Your task to perform on an android device: turn off improve location accuracy Image 0: 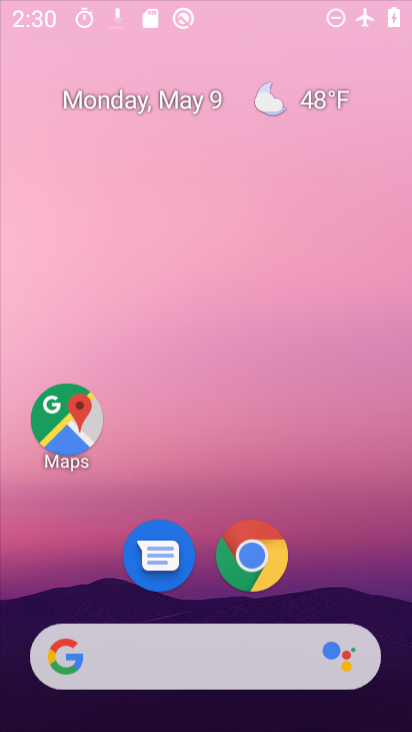
Step 0: click (291, 125)
Your task to perform on an android device: turn off improve location accuracy Image 1: 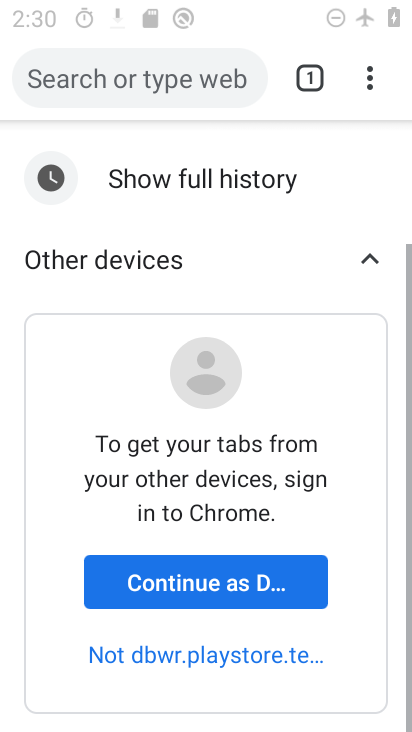
Step 1: drag from (222, 607) to (172, 120)
Your task to perform on an android device: turn off improve location accuracy Image 2: 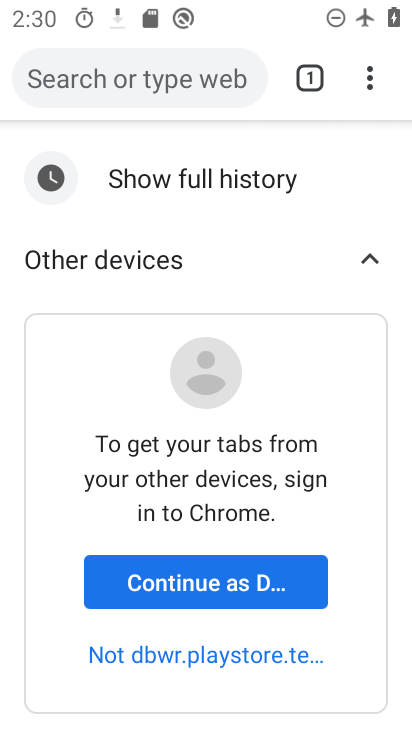
Step 2: drag from (136, 712) to (255, 85)
Your task to perform on an android device: turn off improve location accuracy Image 3: 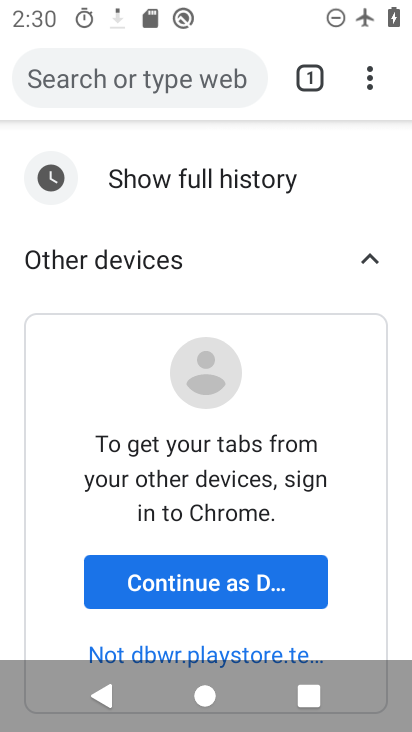
Step 3: drag from (42, 593) to (176, 143)
Your task to perform on an android device: turn off improve location accuracy Image 4: 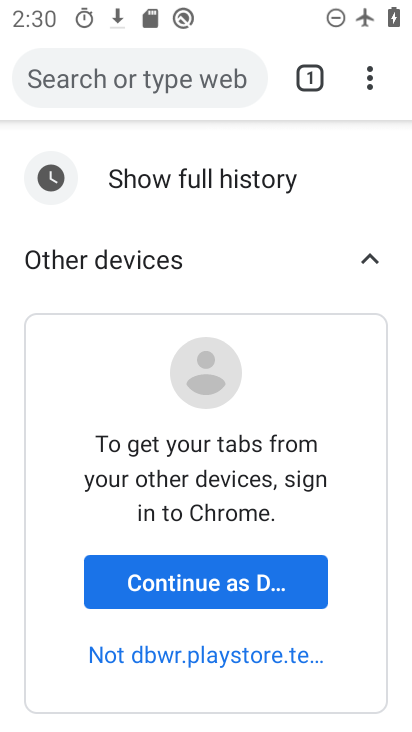
Step 4: drag from (361, 599) to (345, 151)
Your task to perform on an android device: turn off improve location accuracy Image 5: 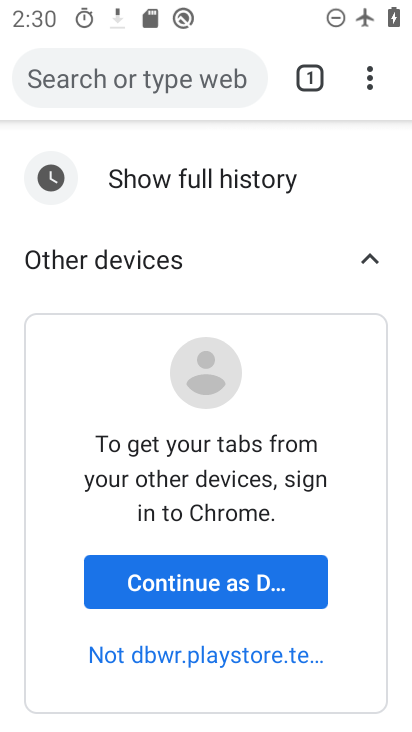
Step 5: drag from (266, 599) to (384, 94)
Your task to perform on an android device: turn off improve location accuracy Image 6: 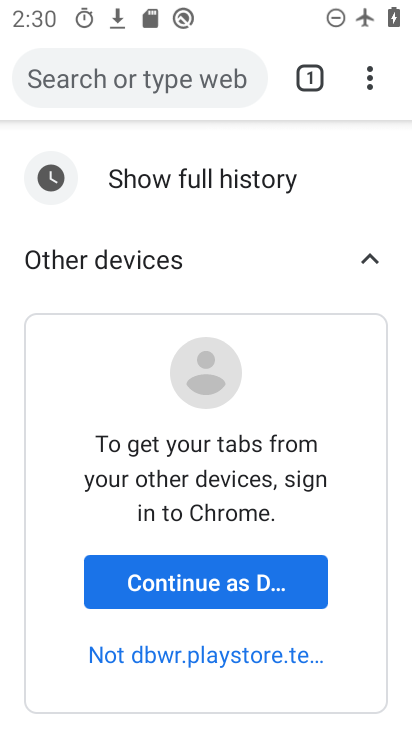
Step 6: press home button
Your task to perform on an android device: turn off improve location accuracy Image 7: 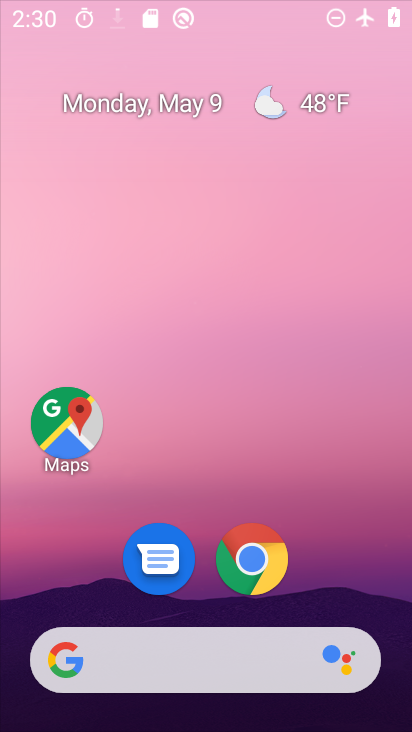
Step 7: drag from (184, 696) to (232, 201)
Your task to perform on an android device: turn off improve location accuracy Image 8: 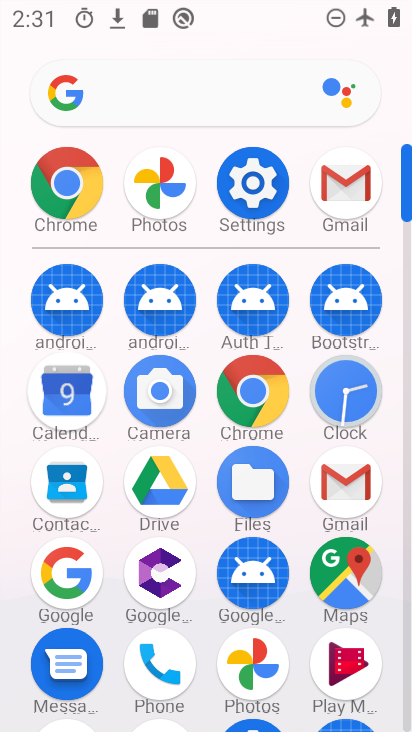
Step 8: click (257, 187)
Your task to perform on an android device: turn off improve location accuracy Image 9: 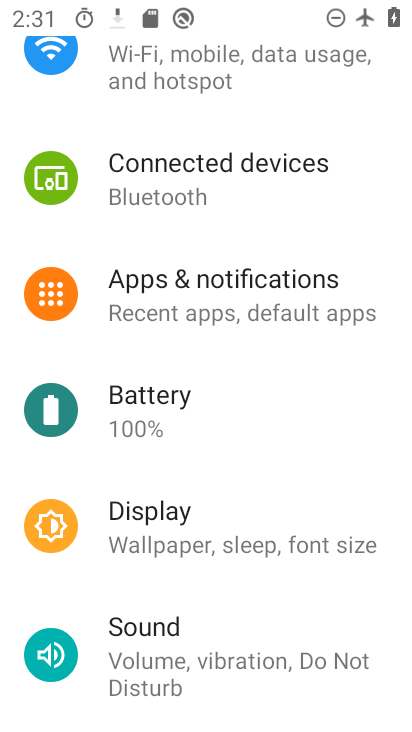
Step 9: drag from (212, 529) to (220, 705)
Your task to perform on an android device: turn off improve location accuracy Image 10: 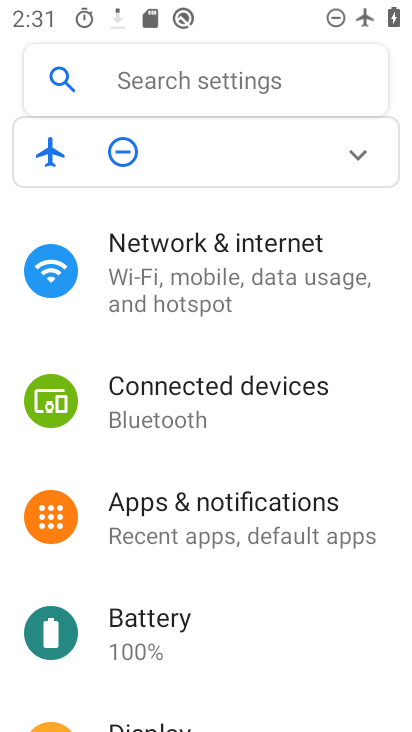
Step 10: drag from (212, 671) to (316, 129)
Your task to perform on an android device: turn off improve location accuracy Image 11: 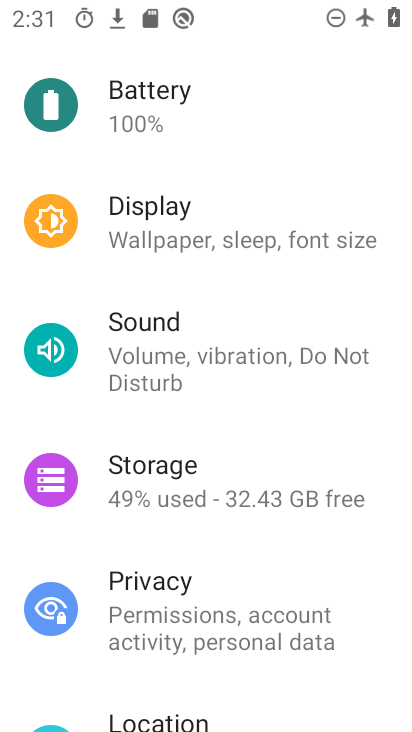
Step 11: drag from (229, 629) to (265, 172)
Your task to perform on an android device: turn off improve location accuracy Image 12: 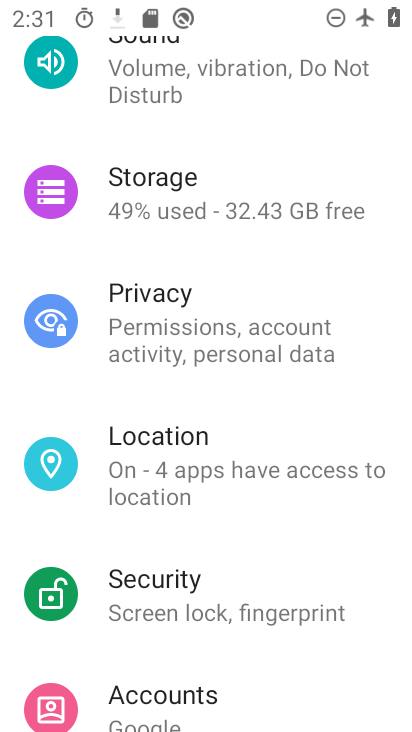
Step 12: drag from (249, 633) to (254, 427)
Your task to perform on an android device: turn off improve location accuracy Image 13: 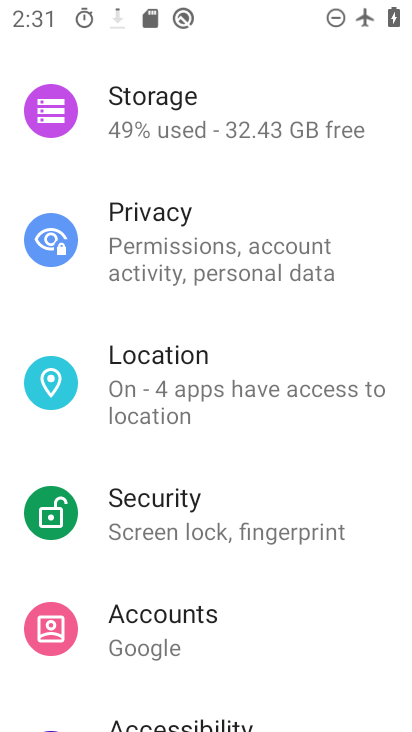
Step 13: drag from (199, 666) to (222, 332)
Your task to perform on an android device: turn off improve location accuracy Image 14: 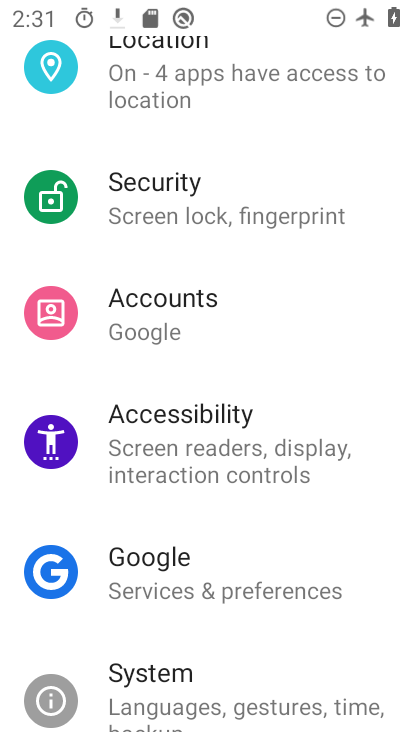
Step 14: drag from (194, 658) to (216, 308)
Your task to perform on an android device: turn off improve location accuracy Image 15: 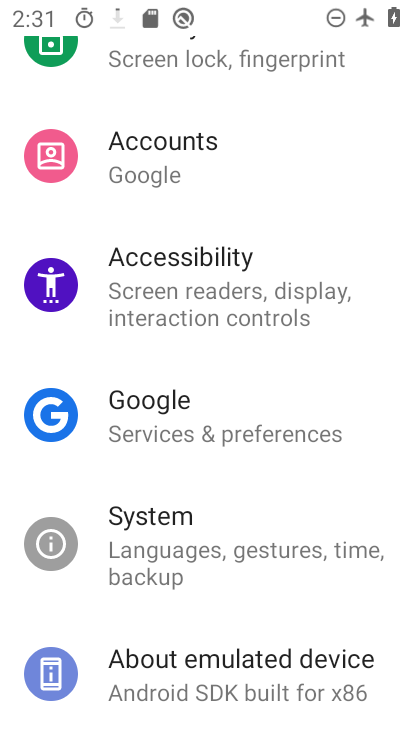
Step 15: drag from (188, 603) to (235, 321)
Your task to perform on an android device: turn off improve location accuracy Image 16: 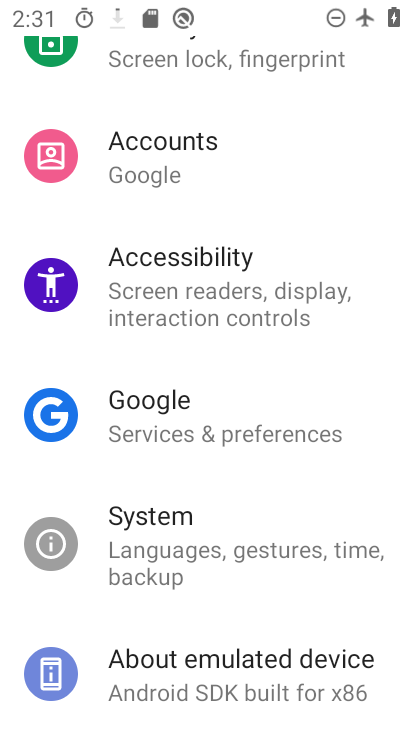
Step 16: drag from (267, 147) to (249, 641)
Your task to perform on an android device: turn off improve location accuracy Image 17: 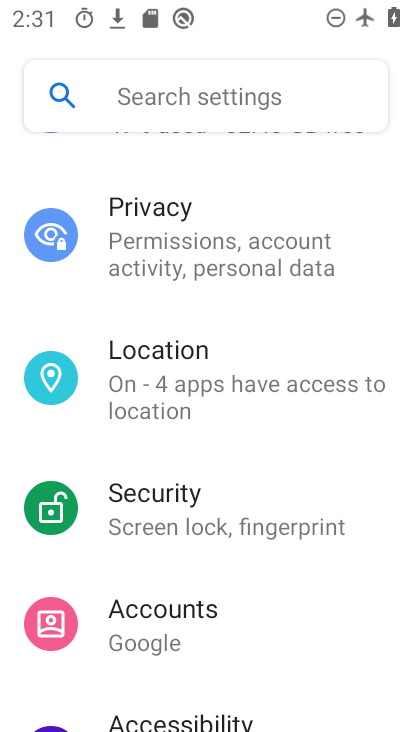
Step 17: drag from (215, 224) to (224, 710)
Your task to perform on an android device: turn off improve location accuracy Image 18: 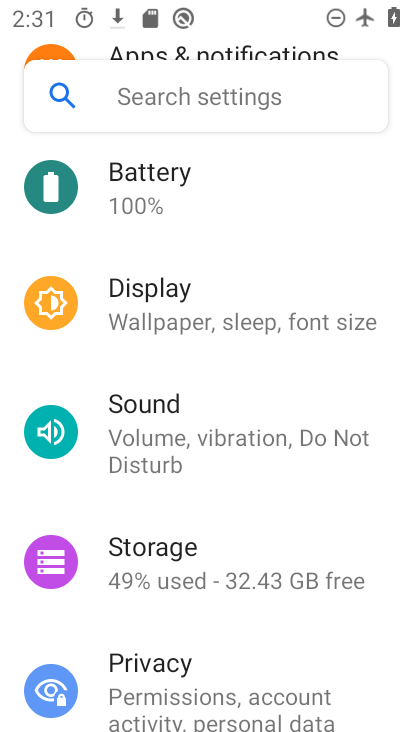
Step 18: drag from (236, 241) to (300, 727)
Your task to perform on an android device: turn off improve location accuracy Image 19: 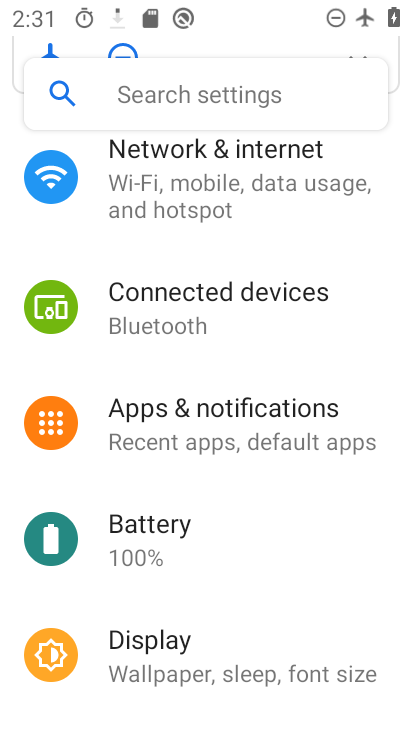
Step 19: drag from (252, 234) to (281, 728)
Your task to perform on an android device: turn off improve location accuracy Image 20: 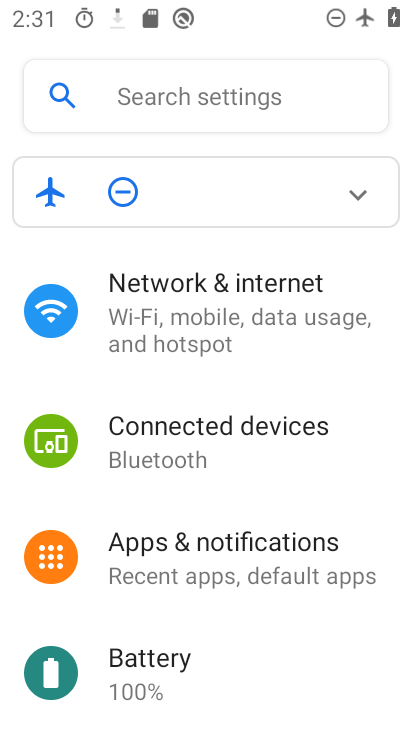
Step 20: drag from (220, 714) to (276, 330)
Your task to perform on an android device: turn off improve location accuracy Image 21: 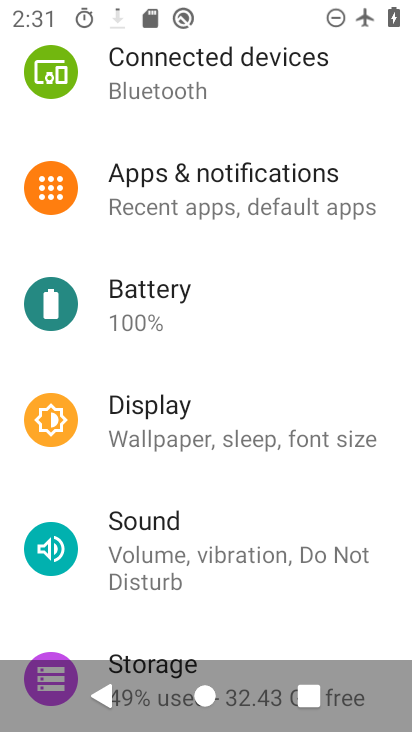
Step 21: drag from (200, 610) to (269, 306)
Your task to perform on an android device: turn off improve location accuracy Image 22: 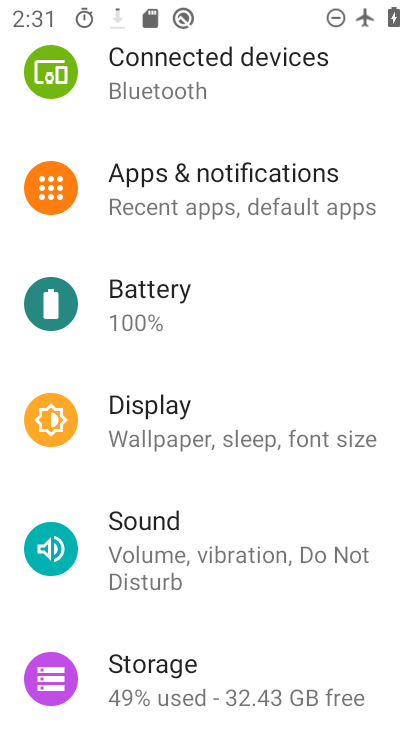
Step 22: drag from (208, 718) to (308, 332)
Your task to perform on an android device: turn off improve location accuracy Image 23: 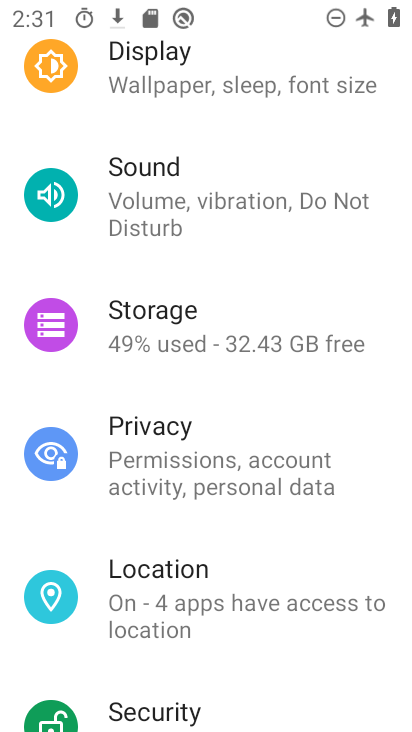
Step 23: click (224, 595)
Your task to perform on an android device: turn off improve location accuracy Image 24: 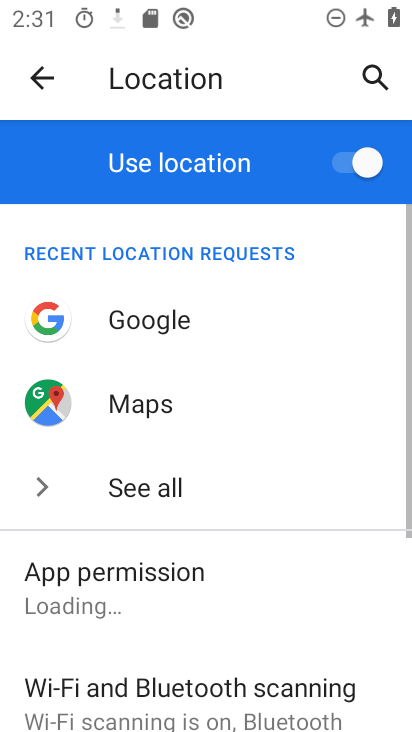
Step 24: drag from (203, 562) to (265, 43)
Your task to perform on an android device: turn off improve location accuracy Image 25: 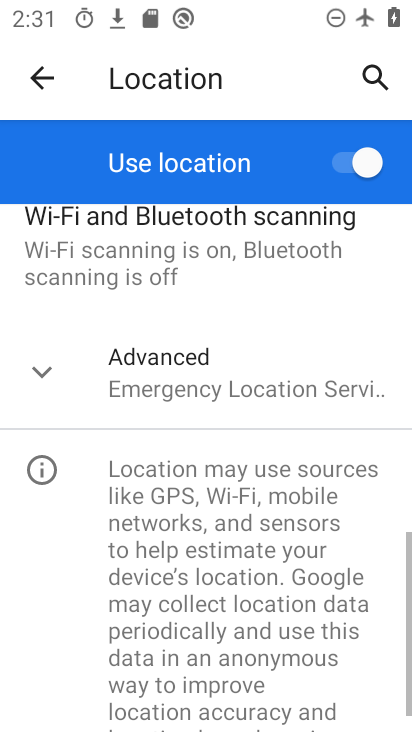
Step 25: click (180, 355)
Your task to perform on an android device: turn off improve location accuracy Image 26: 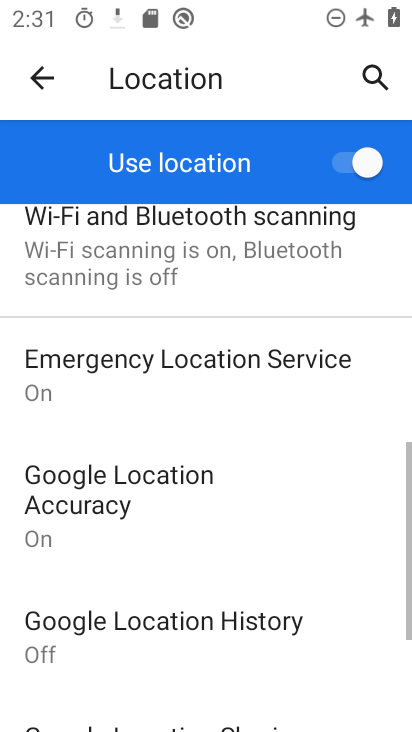
Step 26: drag from (208, 668) to (257, 251)
Your task to perform on an android device: turn off improve location accuracy Image 27: 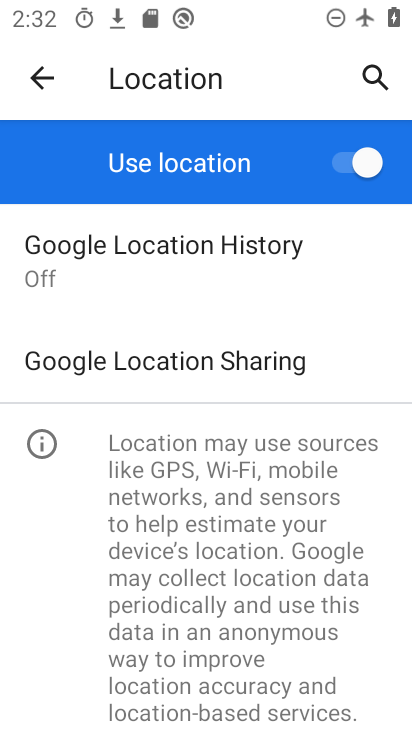
Step 27: drag from (183, 333) to (237, 705)
Your task to perform on an android device: turn off improve location accuracy Image 28: 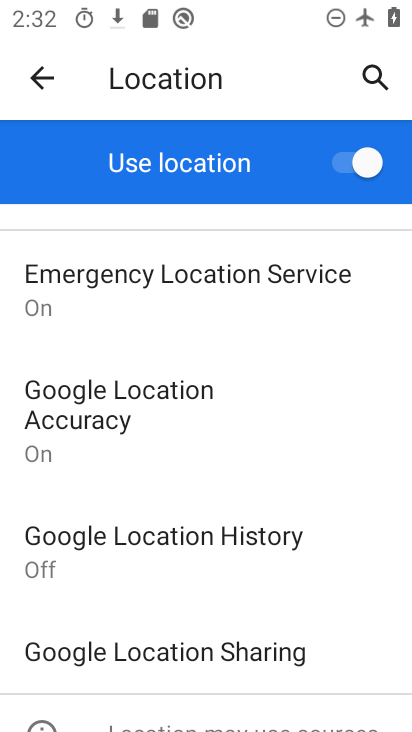
Step 28: click (156, 415)
Your task to perform on an android device: turn off improve location accuracy Image 29: 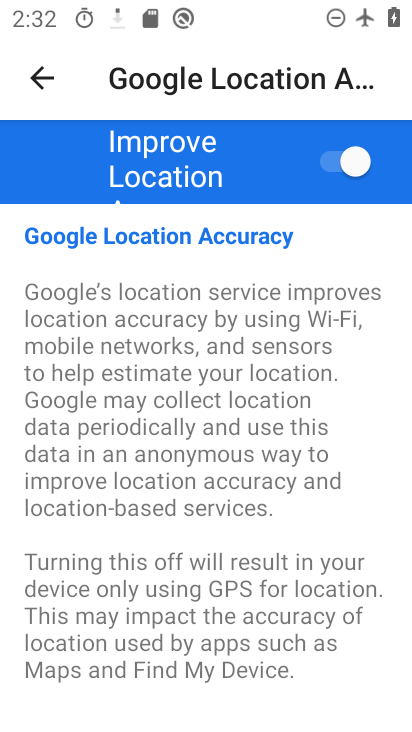
Step 29: click (352, 154)
Your task to perform on an android device: turn off improve location accuracy Image 30: 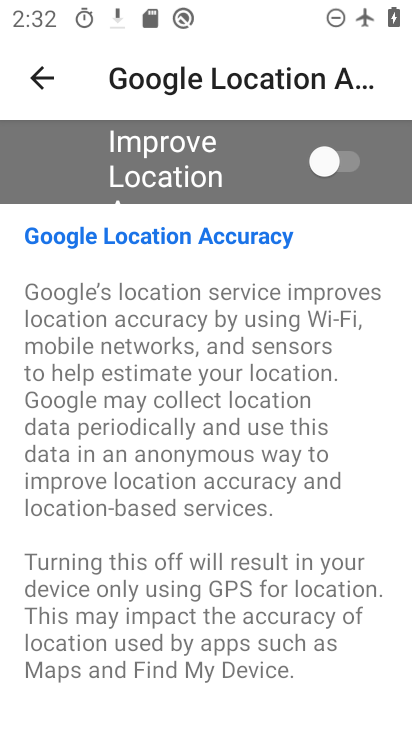
Step 30: task complete